Your task to perform on an android device: toggle show notifications on the lock screen Image 0: 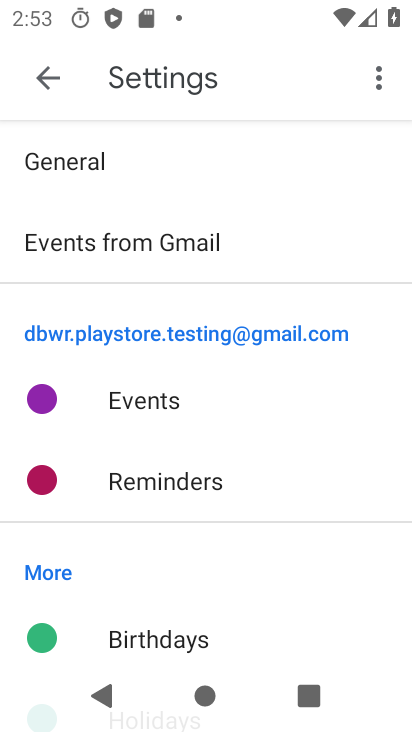
Step 0: press home button
Your task to perform on an android device: toggle show notifications on the lock screen Image 1: 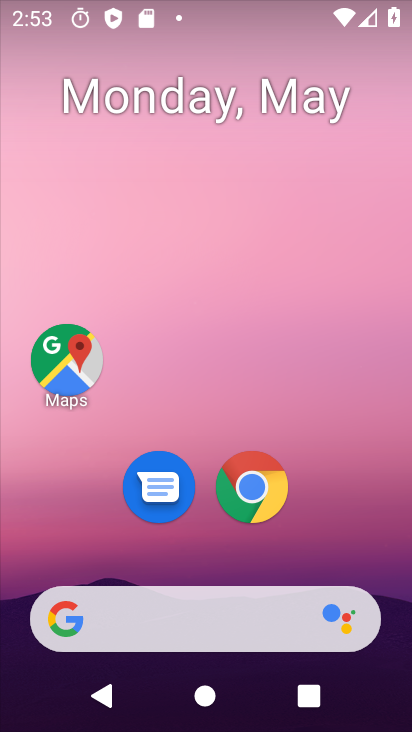
Step 1: drag from (197, 531) to (330, 7)
Your task to perform on an android device: toggle show notifications on the lock screen Image 2: 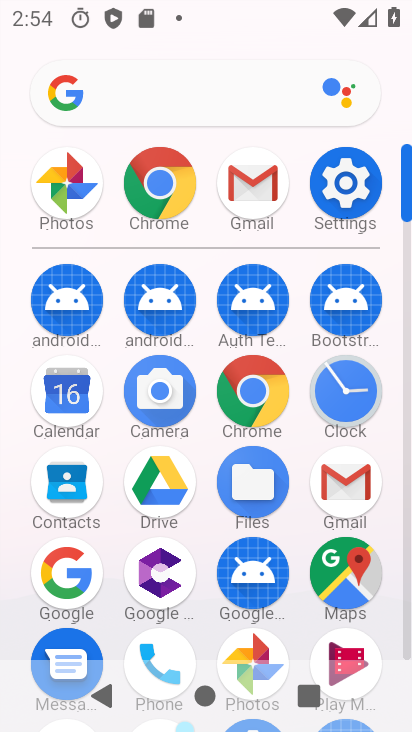
Step 2: click (348, 185)
Your task to perform on an android device: toggle show notifications on the lock screen Image 3: 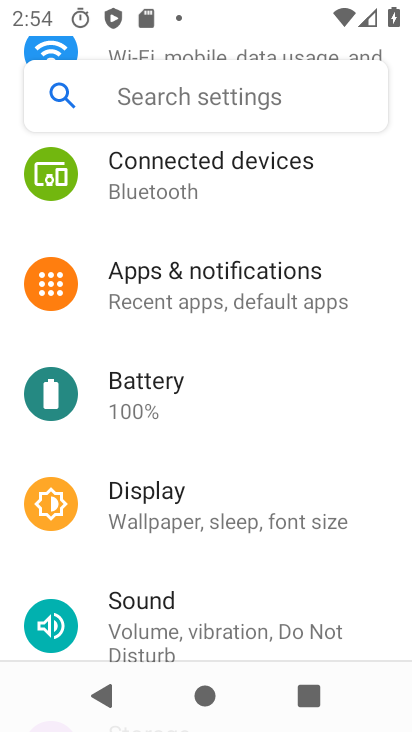
Step 3: click (241, 274)
Your task to perform on an android device: toggle show notifications on the lock screen Image 4: 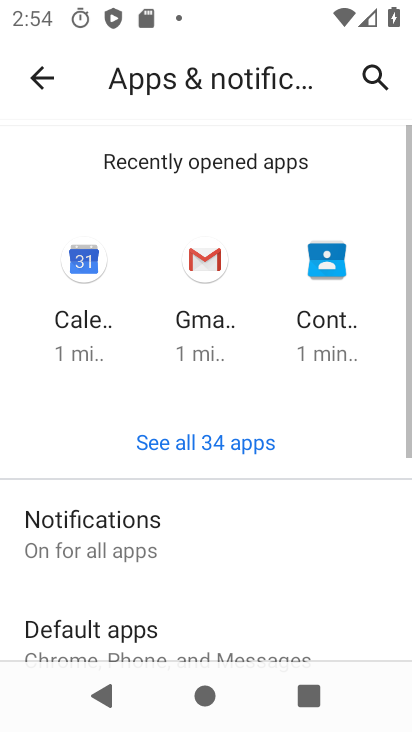
Step 4: click (164, 543)
Your task to perform on an android device: toggle show notifications on the lock screen Image 5: 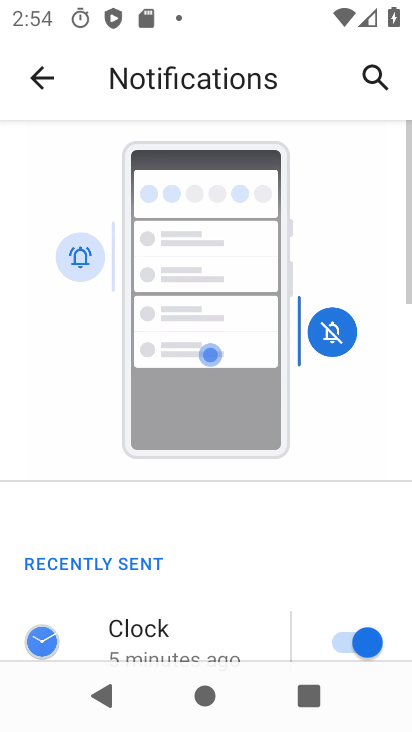
Step 5: drag from (166, 566) to (312, 71)
Your task to perform on an android device: toggle show notifications on the lock screen Image 6: 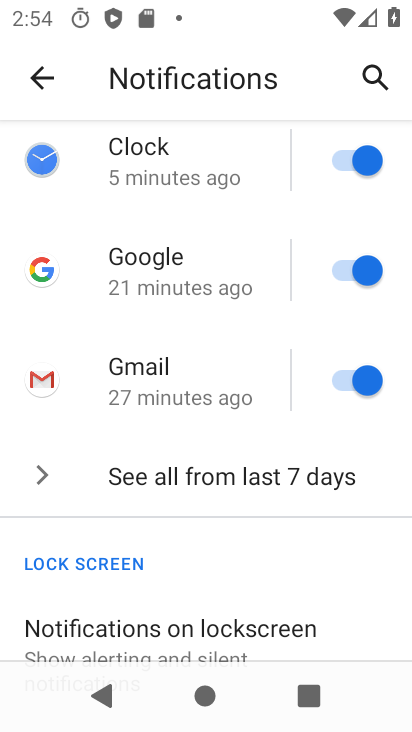
Step 6: drag from (206, 524) to (272, 242)
Your task to perform on an android device: toggle show notifications on the lock screen Image 7: 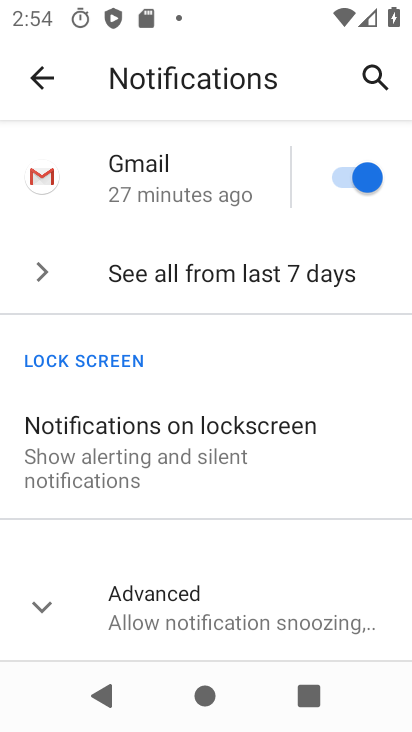
Step 7: click (207, 430)
Your task to perform on an android device: toggle show notifications on the lock screen Image 8: 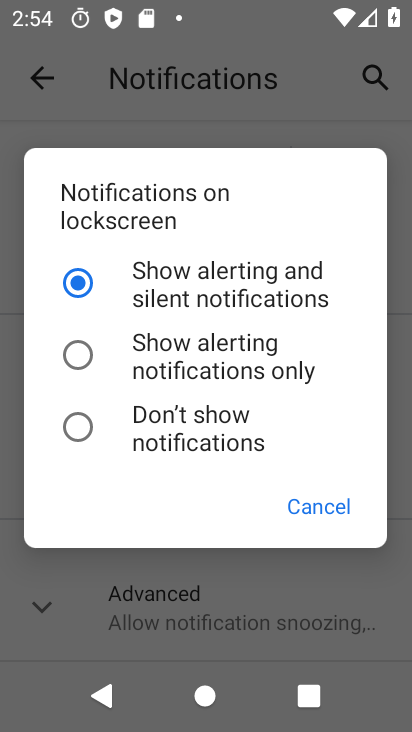
Step 8: click (192, 435)
Your task to perform on an android device: toggle show notifications on the lock screen Image 9: 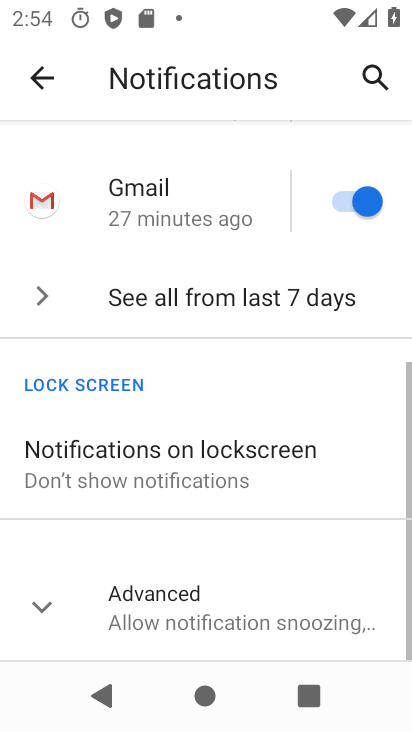
Step 9: task complete